Your task to perform on an android device: Open Google Maps and go to "Timeline" Image 0: 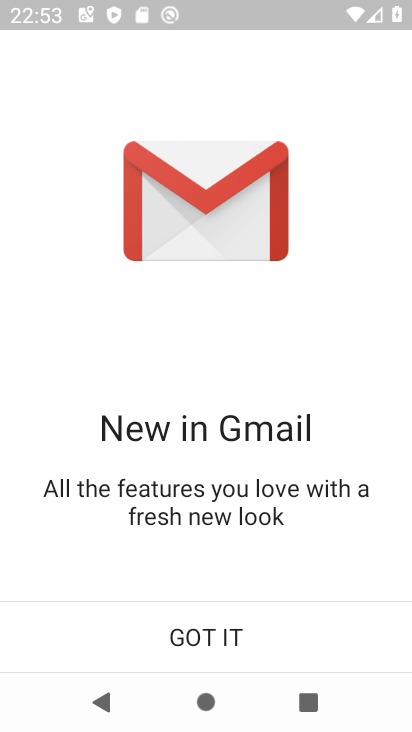
Step 0: press home button
Your task to perform on an android device: Open Google Maps and go to "Timeline" Image 1: 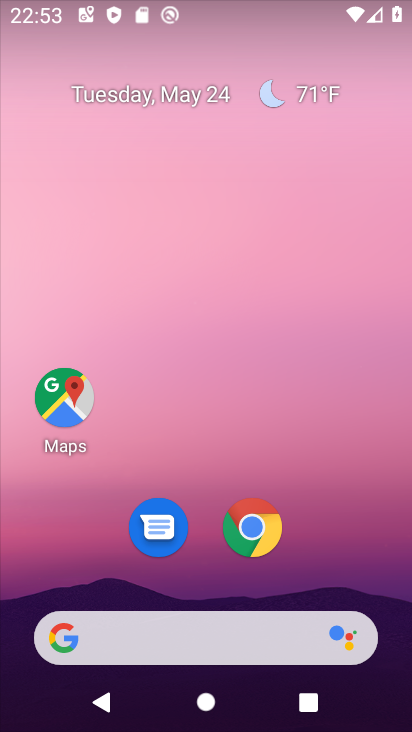
Step 1: click (50, 400)
Your task to perform on an android device: Open Google Maps and go to "Timeline" Image 2: 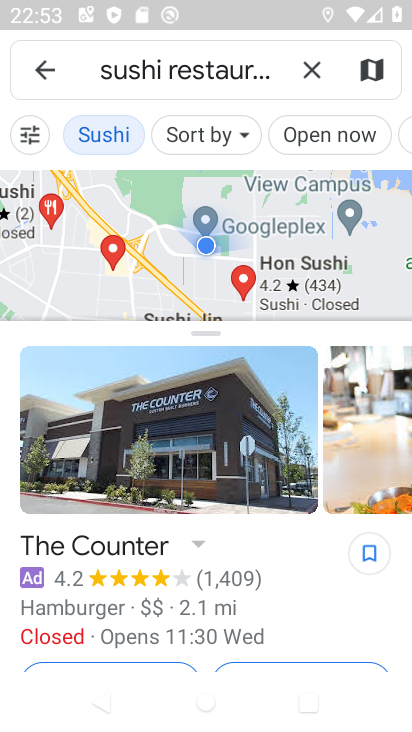
Step 2: click (50, 75)
Your task to perform on an android device: Open Google Maps and go to "Timeline" Image 3: 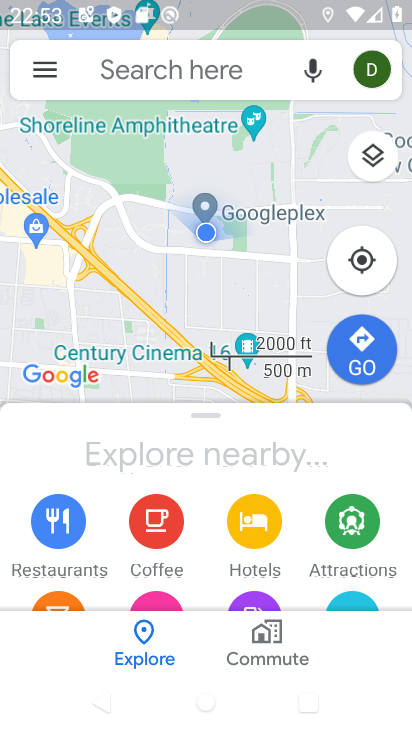
Step 3: click (34, 62)
Your task to perform on an android device: Open Google Maps and go to "Timeline" Image 4: 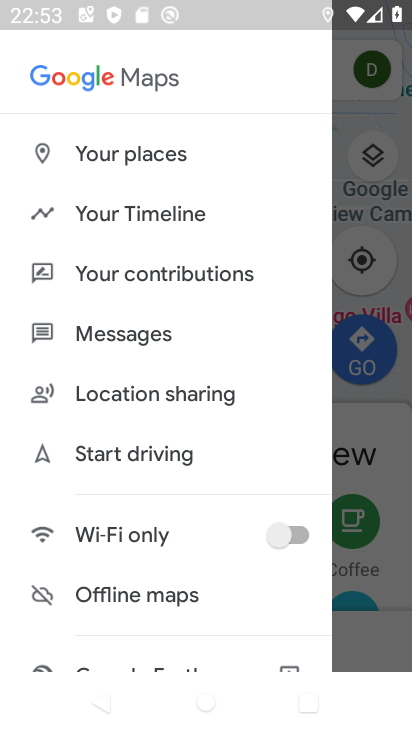
Step 4: click (154, 211)
Your task to perform on an android device: Open Google Maps and go to "Timeline" Image 5: 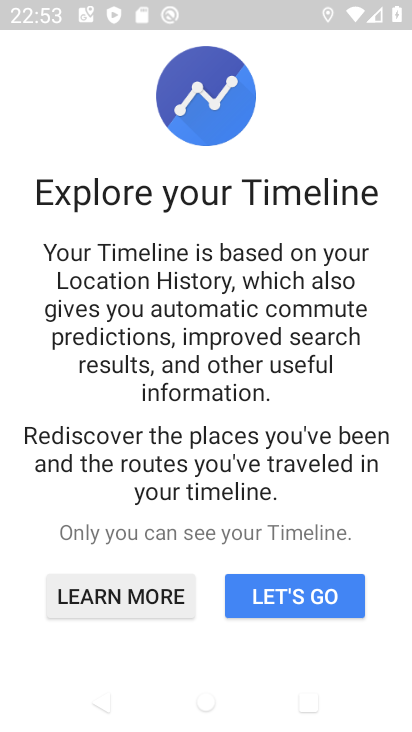
Step 5: drag from (208, 555) to (247, 178)
Your task to perform on an android device: Open Google Maps and go to "Timeline" Image 6: 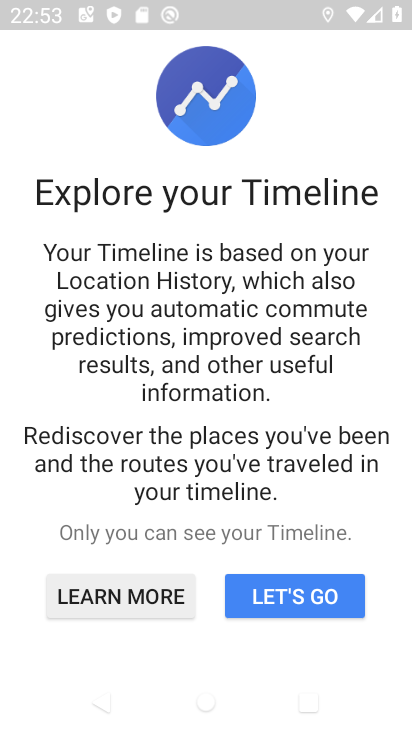
Step 6: click (275, 601)
Your task to perform on an android device: Open Google Maps and go to "Timeline" Image 7: 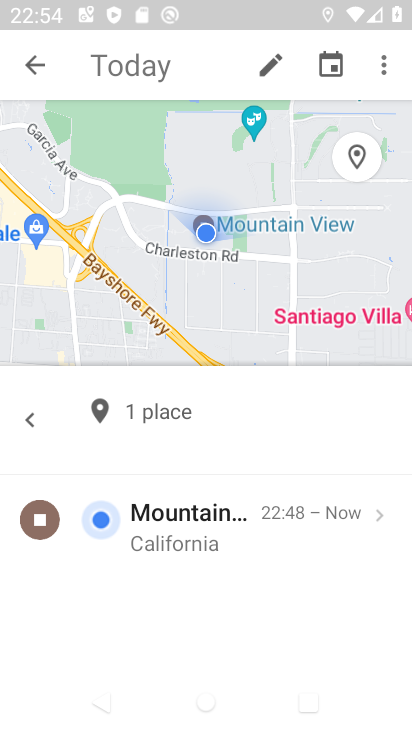
Step 7: task complete